Your task to perform on an android device: change the clock display to digital Image 0: 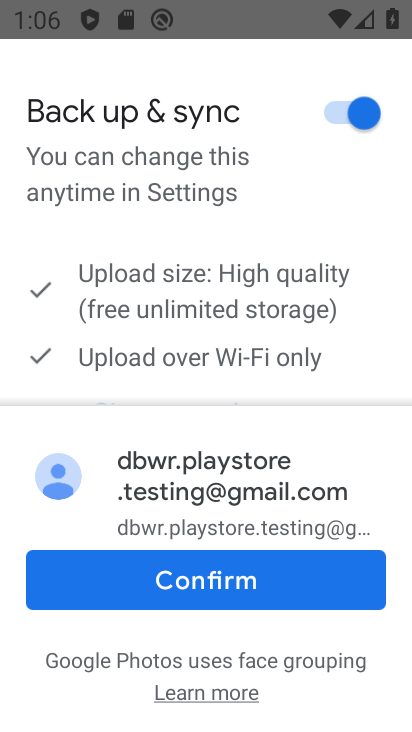
Step 0: press home button
Your task to perform on an android device: change the clock display to digital Image 1: 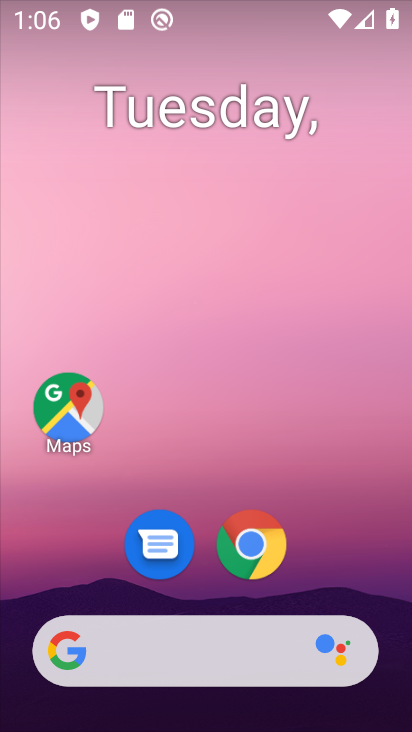
Step 1: drag from (398, 615) to (311, 130)
Your task to perform on an android device: change the clock display to digital Image 2: 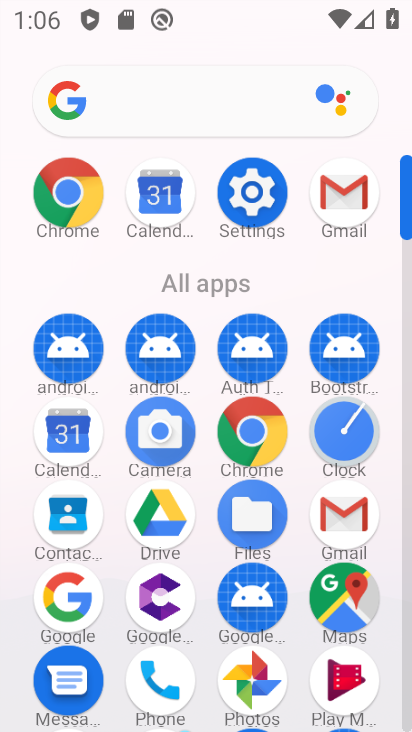
Step 2: click (343, 428)
Your task to perform on an android device: change the clock display to digital Image 3: 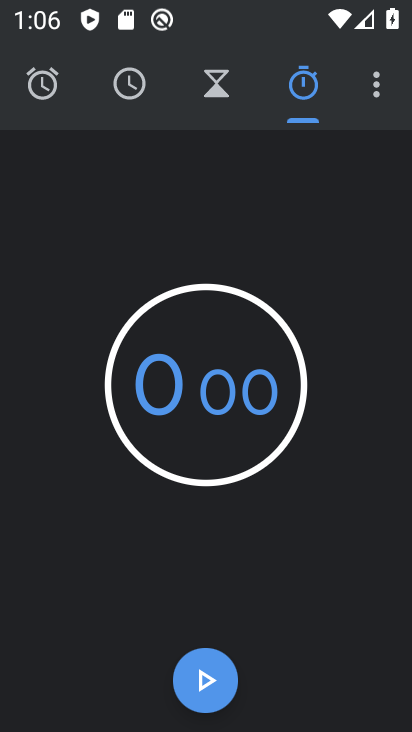
Step 3: click (376, 92)
Your task to perform on an android device: change the clock display to digital Image 4: 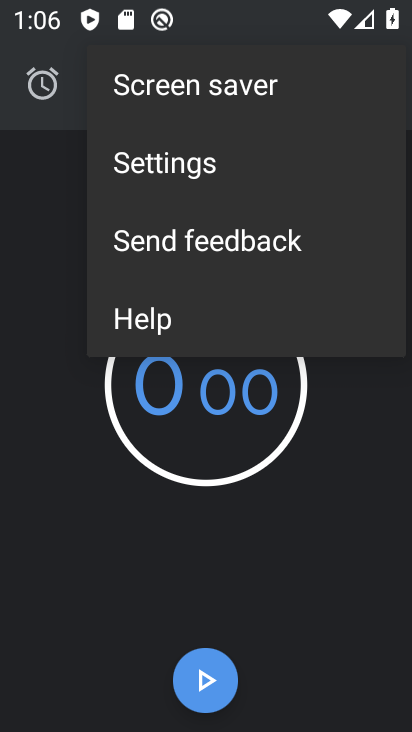
Step 4: click (178, 156)
Your task to perform on an android device: change the clock display to digital Image 5: 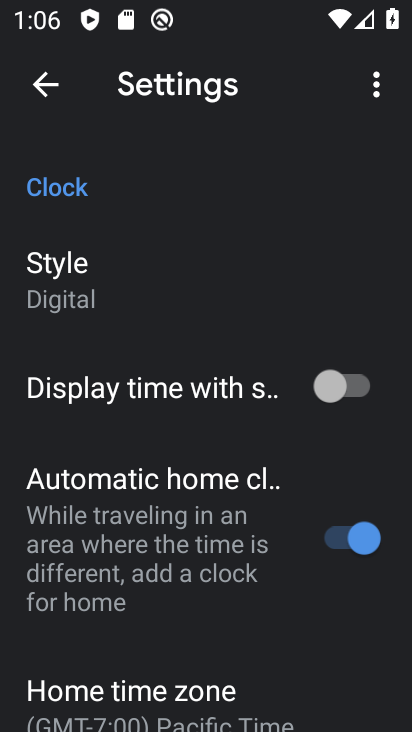
Step 5: task complete